Your task to perform on an android device: What's the weather? Image 0: 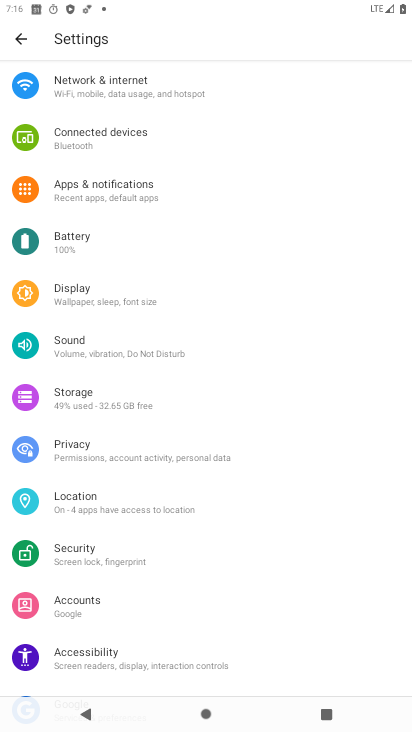
Step 0: press home button
Your task to perform on an android device: What's the weather? Image 1: 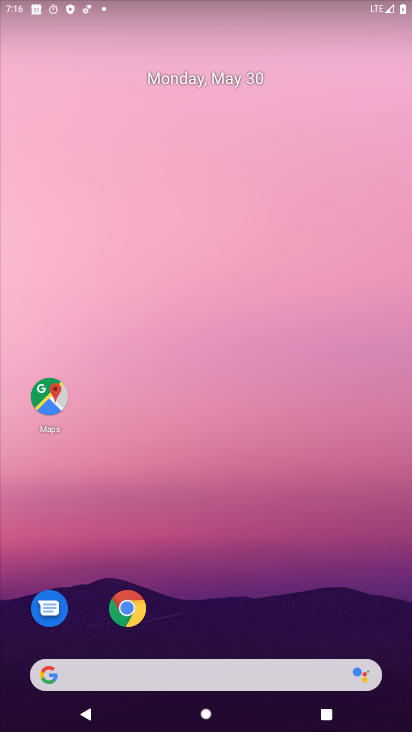
Step 1: click (126, 610)
Your task to perform on an android device: What's the weather? Image 2: 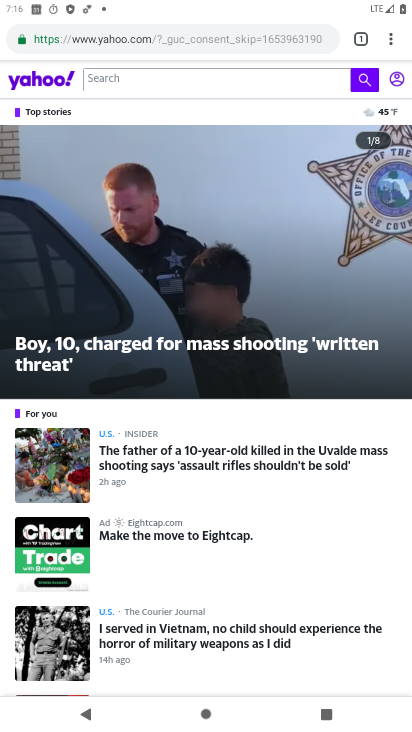
Step 2: click (139, 47)
Your task to perform on an android device: What's the weather? Image 3: 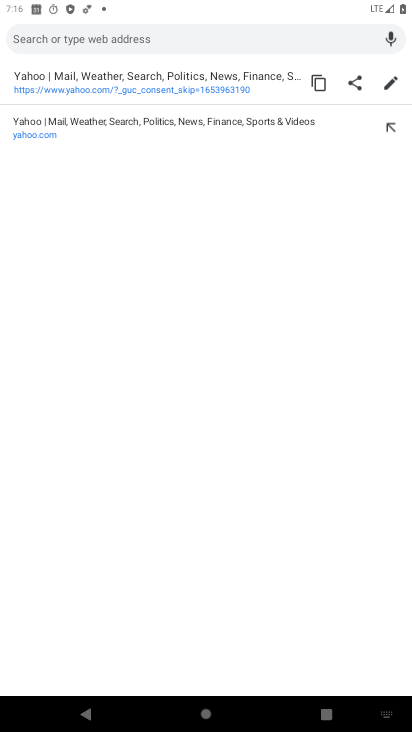
Step 3: type "weather"
Your task to perform on an android device: What's the weather? Image 4: 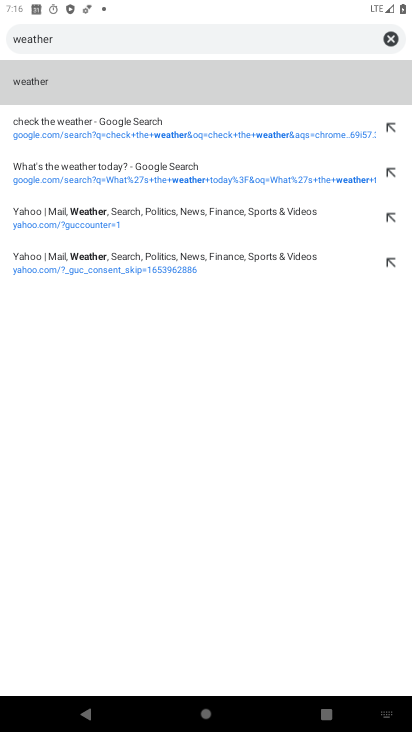
Step 4: click (117, 89)
Your task to perform on an android device: What's the weather? Image 5: 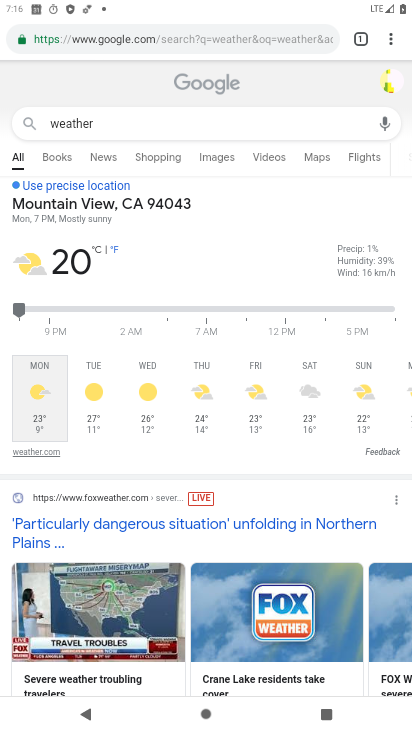
Step 5: task complete